Your task to perform on an android device: open a bookmark in the chrome app Image 0: 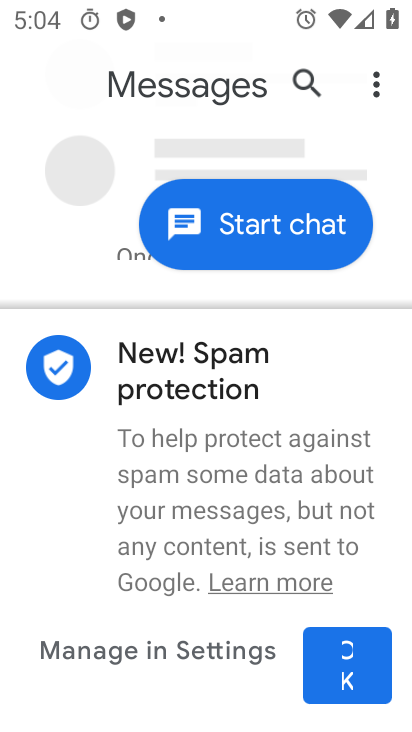
Step 0: drag from (211, 618) to (178, 345)
Your task to perform on an android device: open a bookmark in the chrome app Image 1: 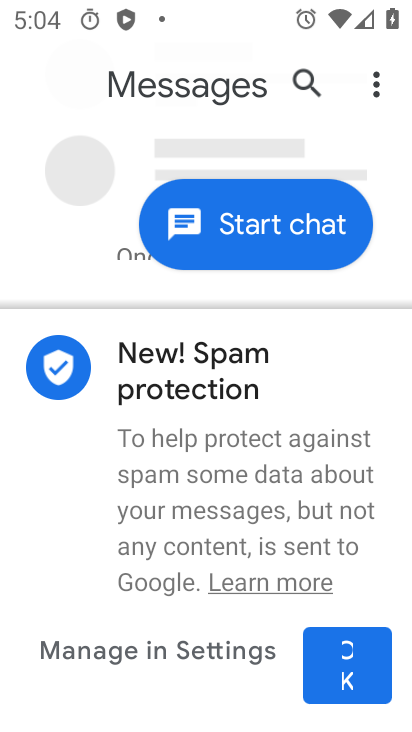
Step 1: press home button
Your task to perform on an android device: open a bookmark in the chrome app Image 2: 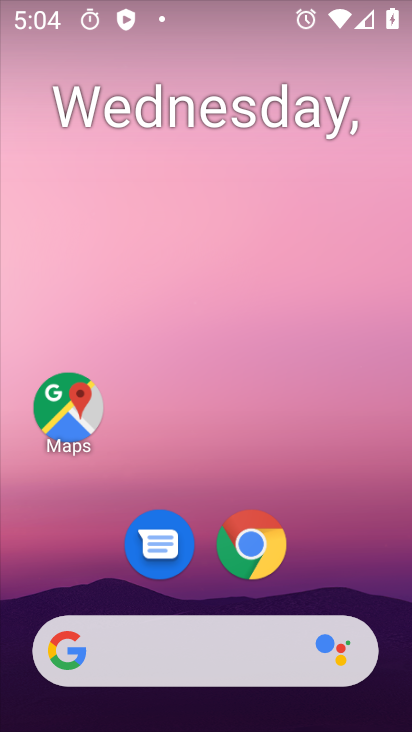
Step 2: click (247, 561)
Your task to perform on an android device: open a bookmark in the chrome app Image 3: 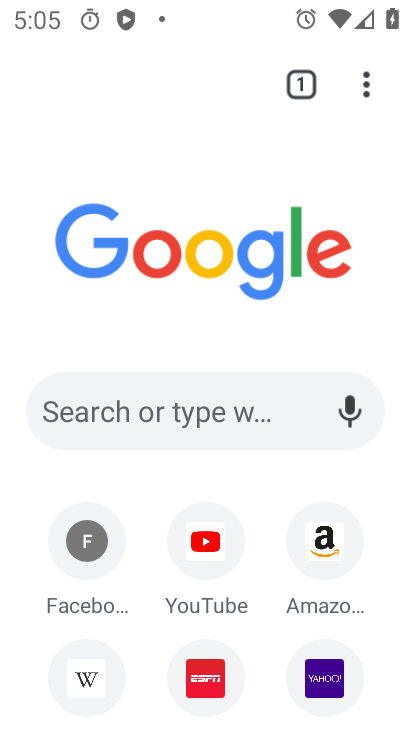
Step 3: click (367, 85)
Your task to perform on an android device: open a bookmark in the chrome app Image 4: 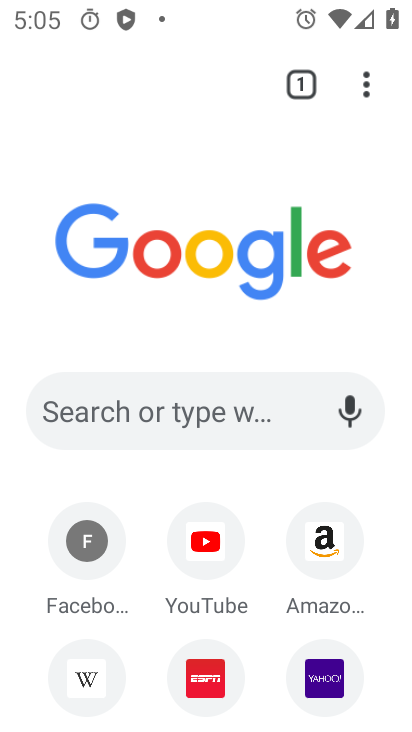
Step 4: click (366, 85)
Your task to perform on an android device: open a bookmark in the chrome app Image 5: 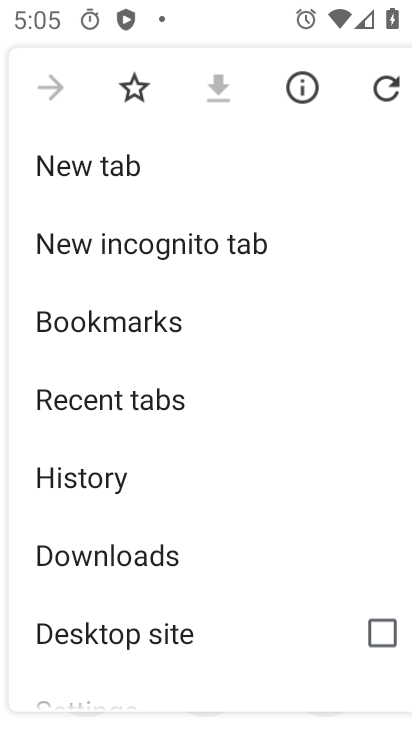
Step 5: drag from (185, 668) to (156, 338)
Your task to perform on an android device: open a bookmark in the chrome app Image 6: 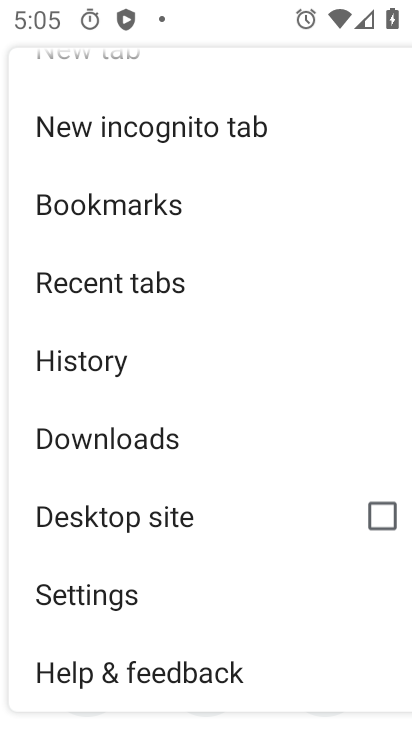
Step 6: click (115, 592)
Your task to perform on an android device: open a bookmark in the chrome app Image 7: 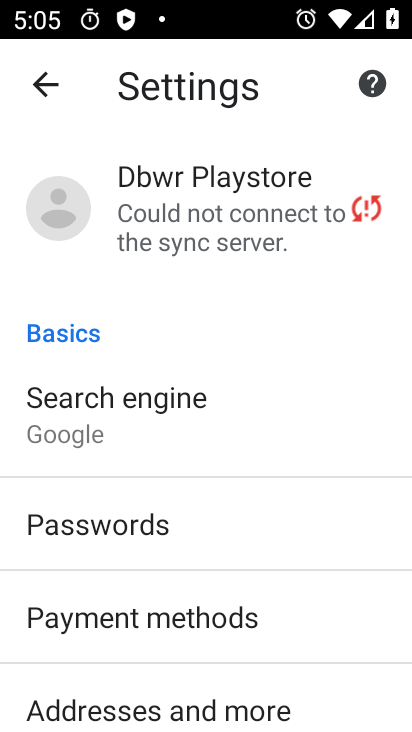
Step 7: click (51, 81)
Your task to perform on an android device: open a bookmark in the chrome app Image 8: 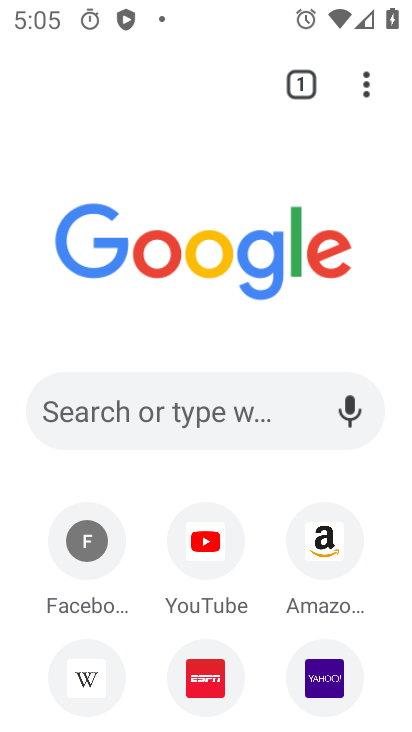
Step 8: click (369, 75)
Your task to perform on an android device: open a bookmark in the chrome app Image 9: 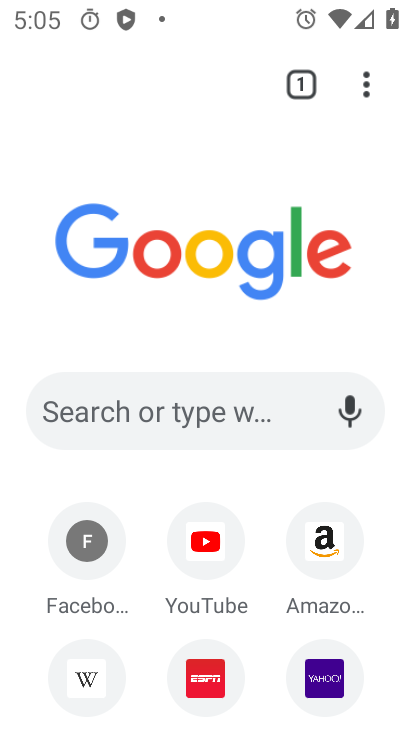
Step 9: click (368, 76)
Your task to perform on an android device: open a bookmark in the chrome app Image 10: 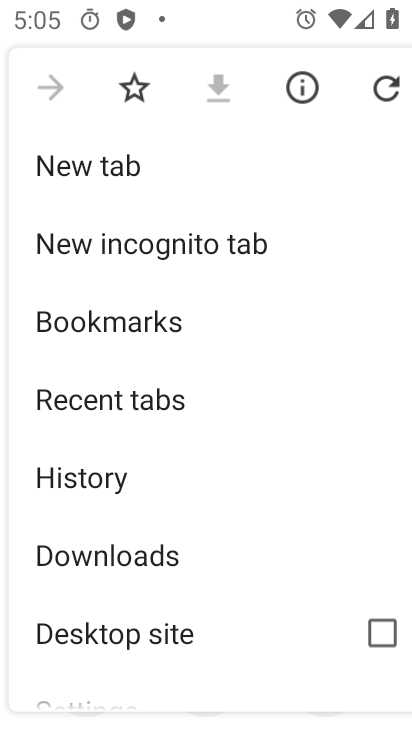
Step 10: click (117, 308)
Your task to perform on an android device: open a bookmark in the chrome app Image 11: 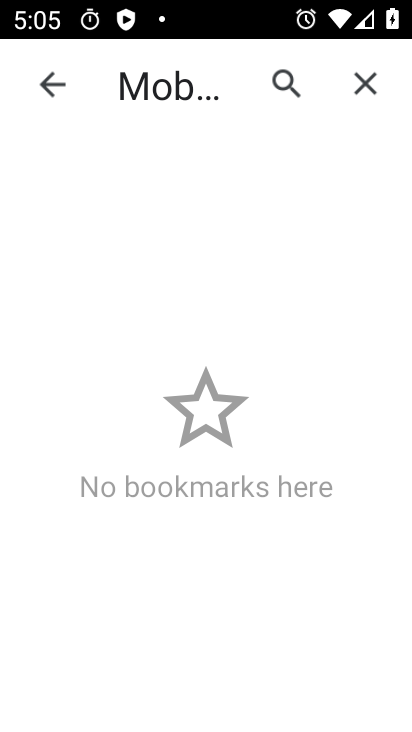
Step 11: task complete